Your task to perform on an android device: turn off notifications in google photos Image 0: 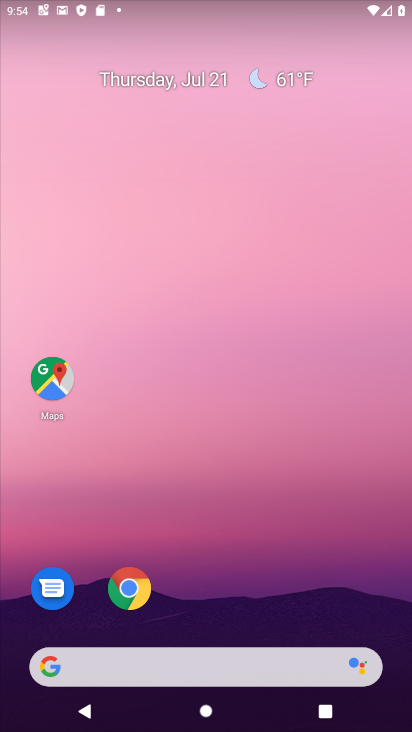
Step 0: drag from (210, 625) to (281, 57)
Your task to perform on an android device: turn off notifications in google photos Image 1: 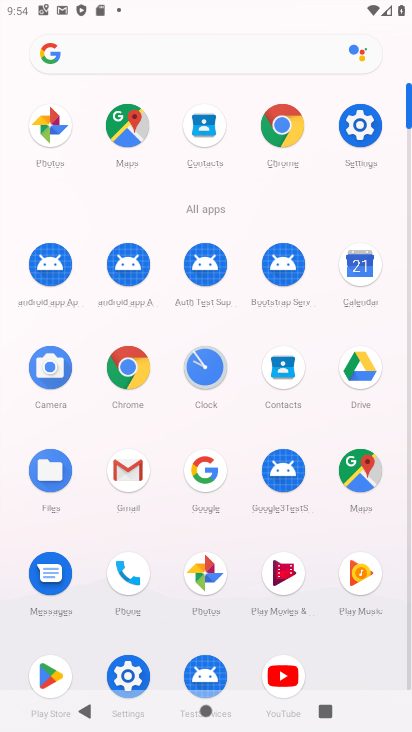
Step 1: click (198, 574)
Your task to perform on an android device: turn off notifications in google photos Image 2: 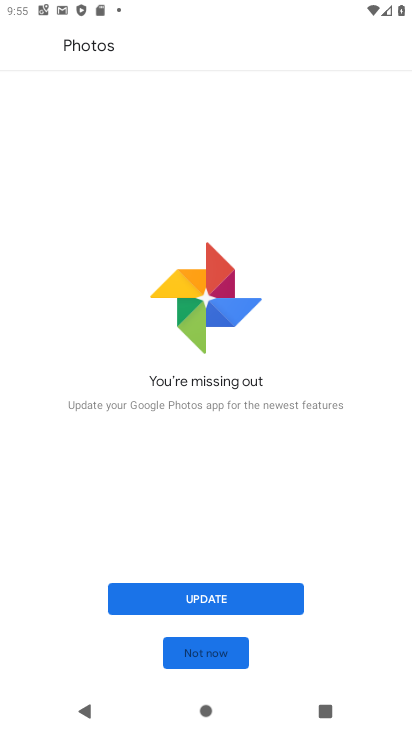
Step 2: click (215, 653)
Your task to perform on an android device: turn off notifications in google photos Image 3: 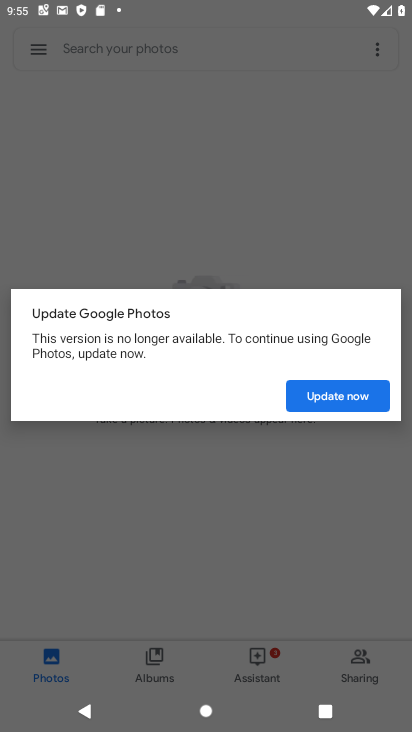
Step 3: click (328, 402)
Your task to perform on an android device: turn off notifications in google photos Image 4: 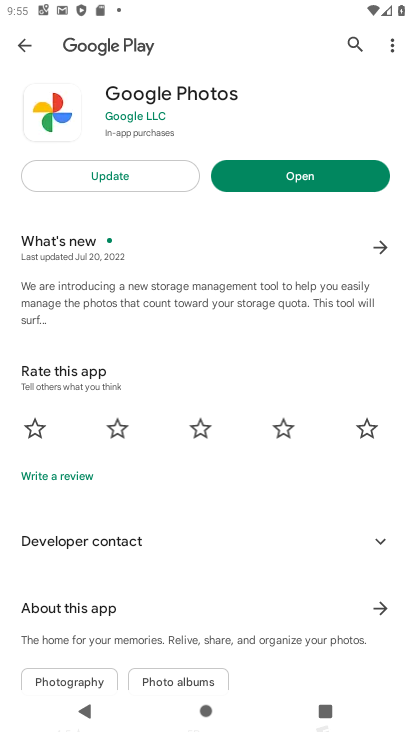
Step 4: click (330, 178)
Your task to perform on an android device: turn off notifications in google photos Image 5: 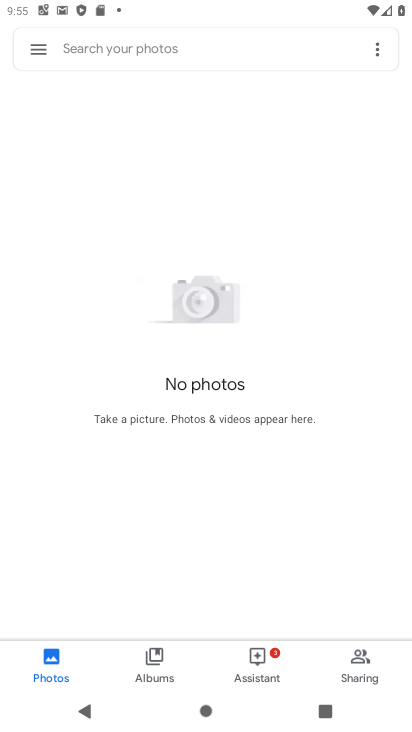
Step 5: click (28, 48)
Your task to perform on an android device: turn off notifications in google photos Image 6: 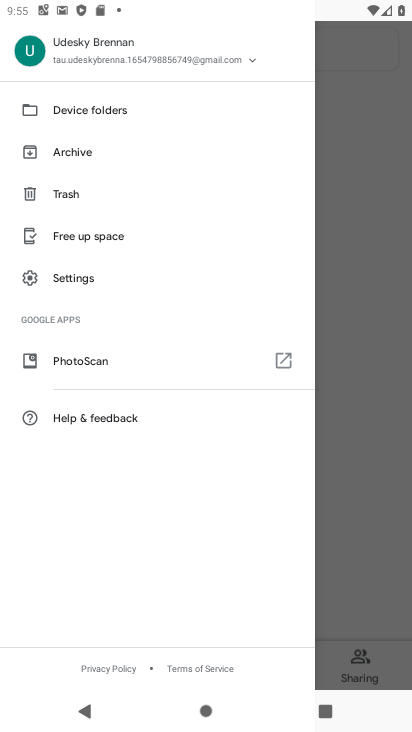
Step 6: click (71, 272)
Your task to perform on an android device: turn off notifications in google photos Image 7: 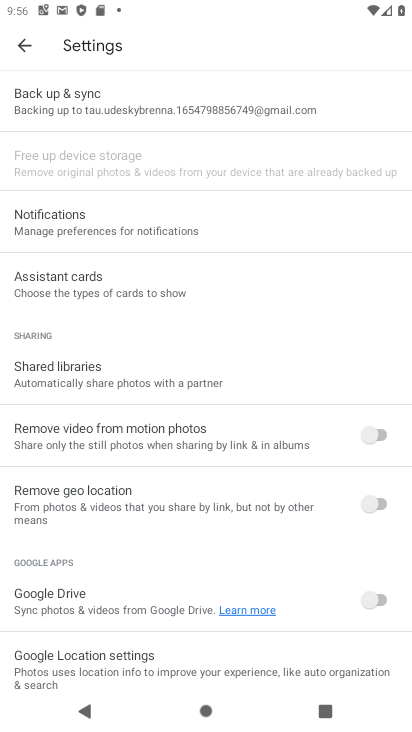
Step 7: click (62, 234)
Your task to perform on an android device: turn off notifications in google photos Image 8: 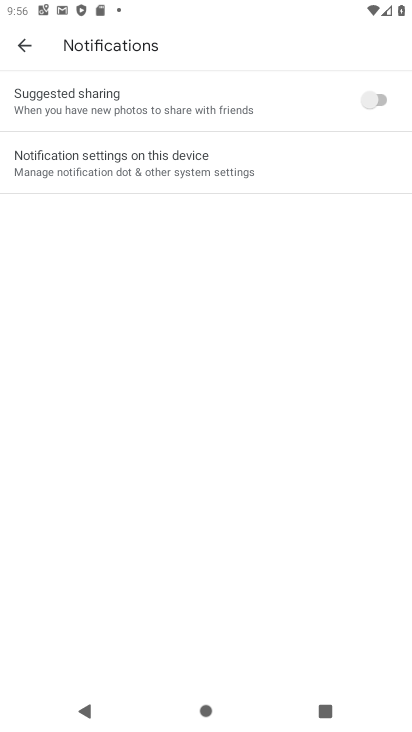
Step 8: click (117, 163)
Your task to perform on an android device: turn off notifications in google photos Image 9: 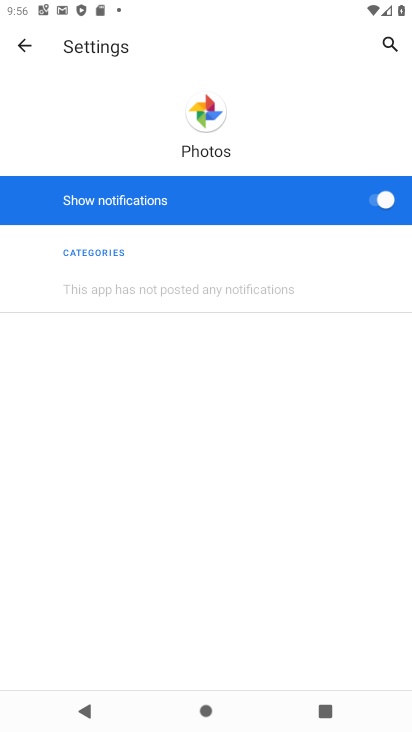
Step 9: click (386, 197)
Your task to perform on an android device: turn off notifications in google photos Image 10: 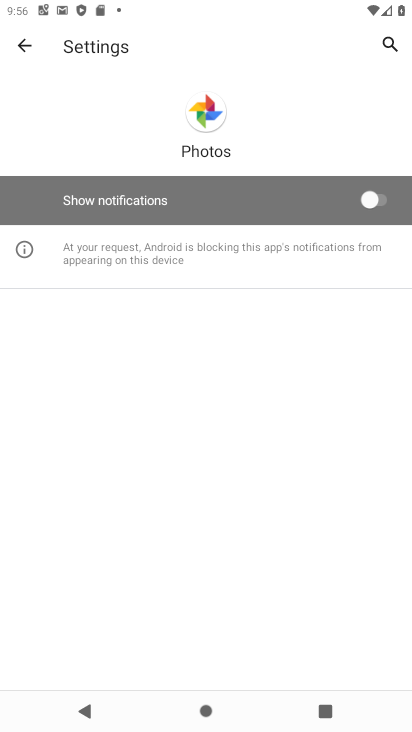
Step 10: task complete